Your task to perform on an android device: Search for Mexican restaurants on Maps Image 0: 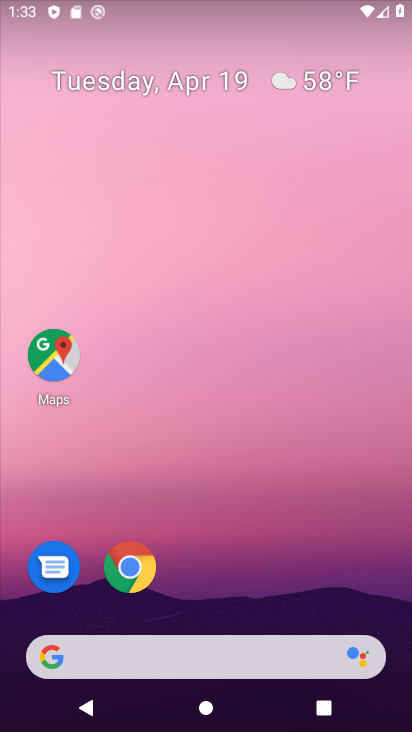
Step 0: click (52, 354)
Your task to perform on an android device: Search for Mexican restaurants on Maps Image 1: 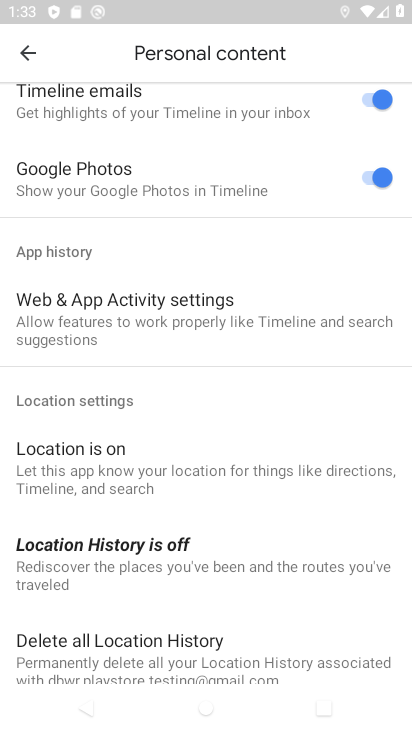
Step 1: press back button
Your task to perform on an android device: Search for Mexican restaurants on Maps Image 2: 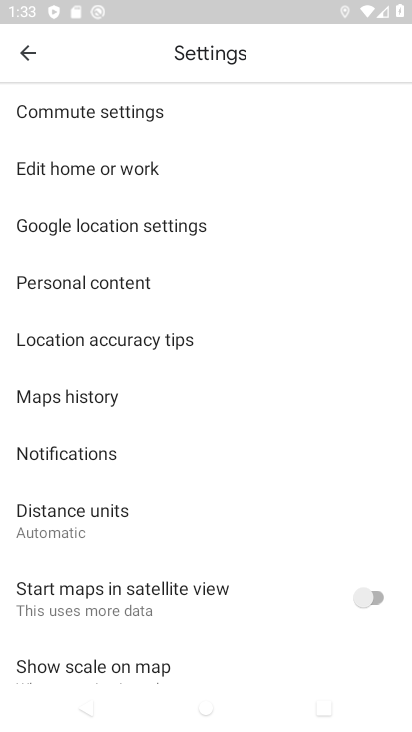
Step 2: press back button
Your task to perform on an android device: Search for Mexican restaurants on Maps Image 3: 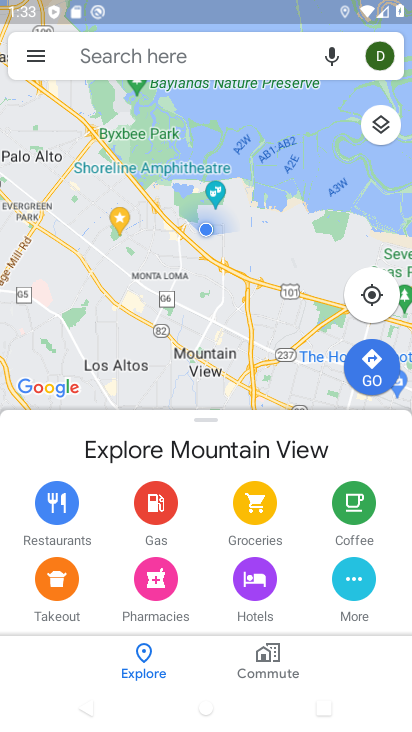
Step 3: click (81, 46)
Your task to perform on an android device: Search for Mexican restaurants on Maps Image 4: 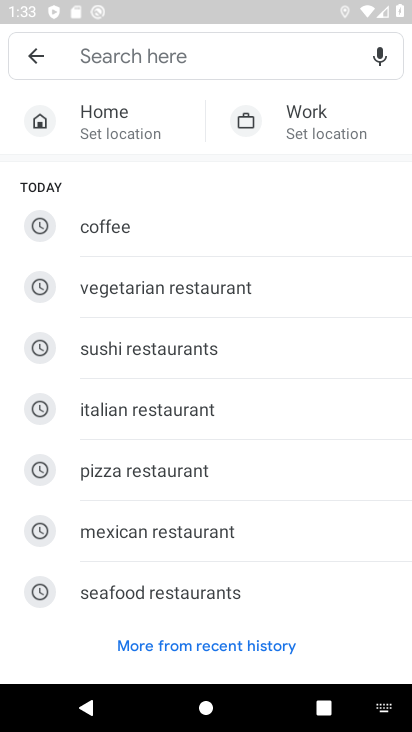
Step 4: type "maxican restaurants"
Your task to perform on an android device: Search for Mexican restaurants on Maps Image 5: 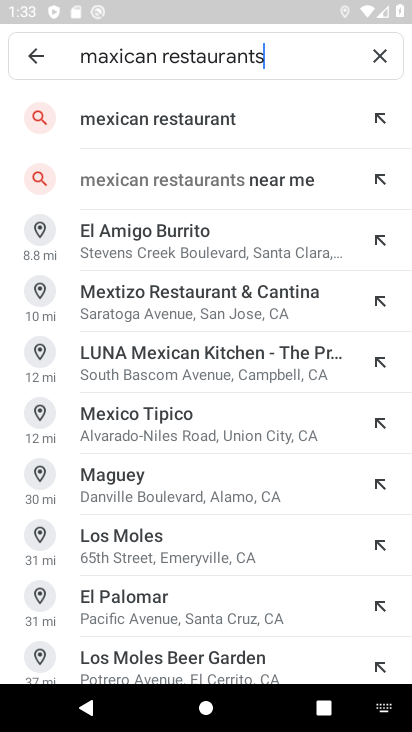
Step 5: click (149, 117)
Your task to perform on an android device: Search for Mexican restaurants on Maps Image 6: 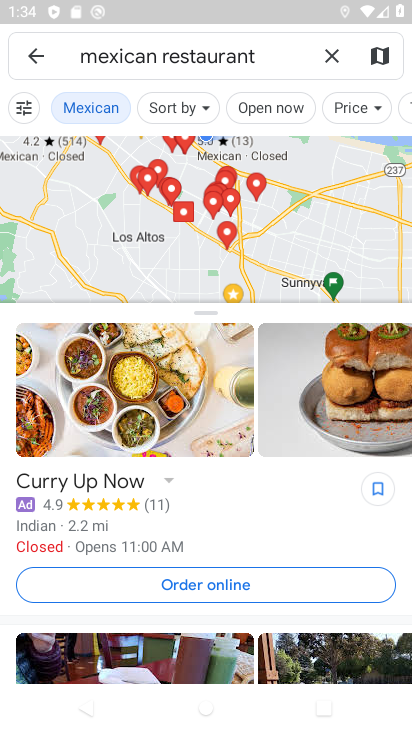
Step 6: task complete